Your task to perform on an android device: Go to battery settings Image 0: 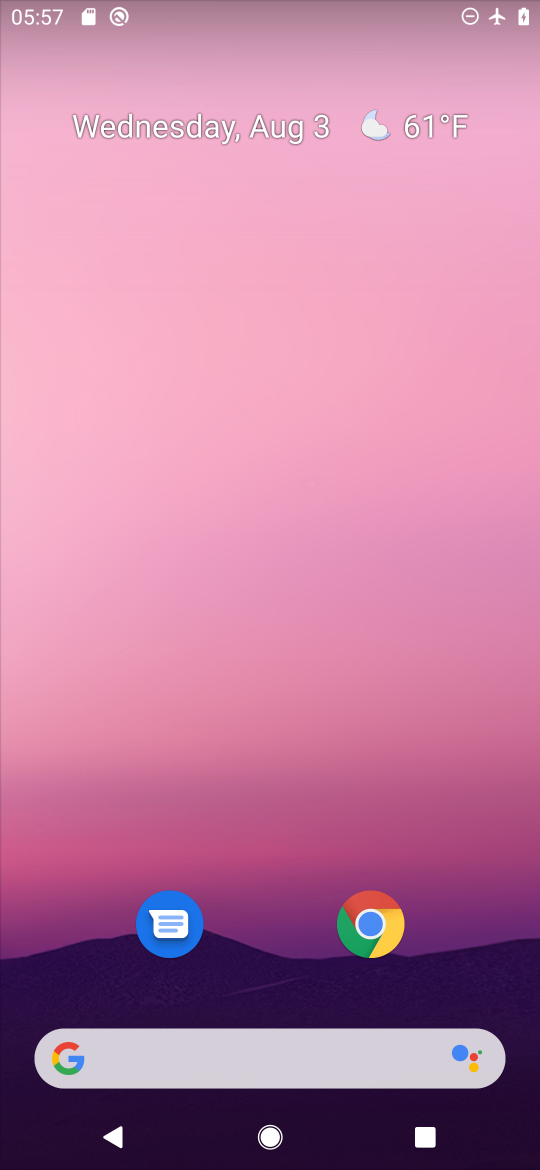
Step 0: drag from (264, 975) to (199, 238)
Your task to perform on an android device: Go to battery settings Image 1: 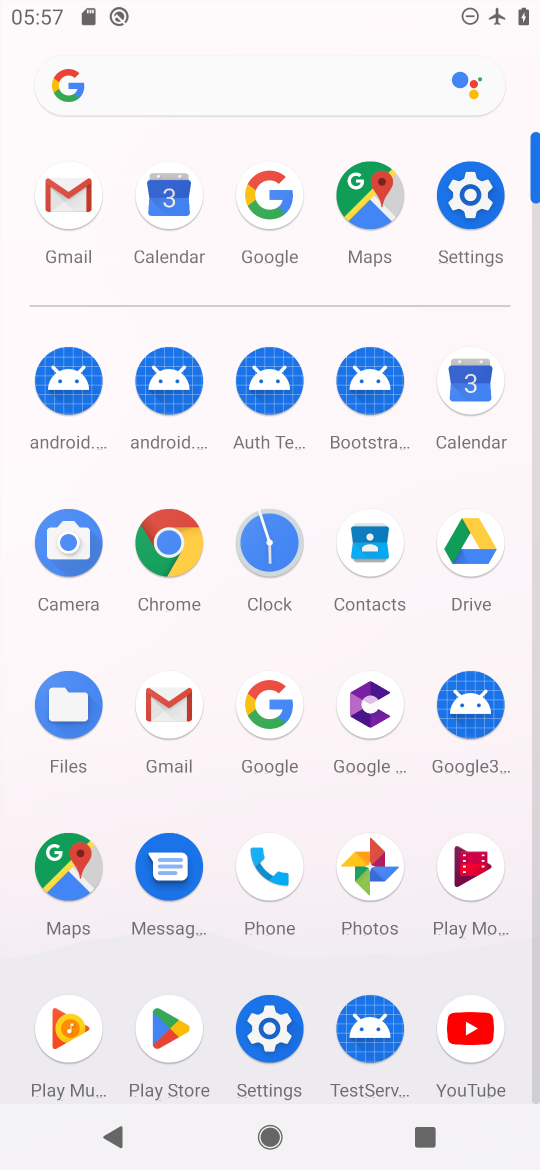
Step 1: click (459, 209)
Your task to perform on an android device: Go to battery settings Image 2: 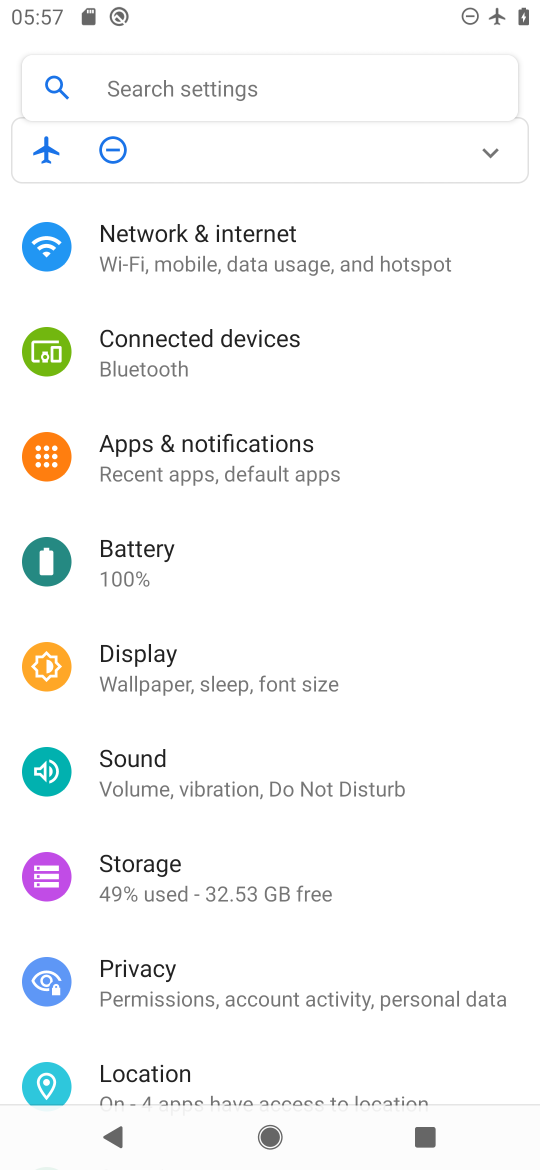
Step 2: click (156, 570)
Your task to perform on an android device: Go to battery settings Image 3: 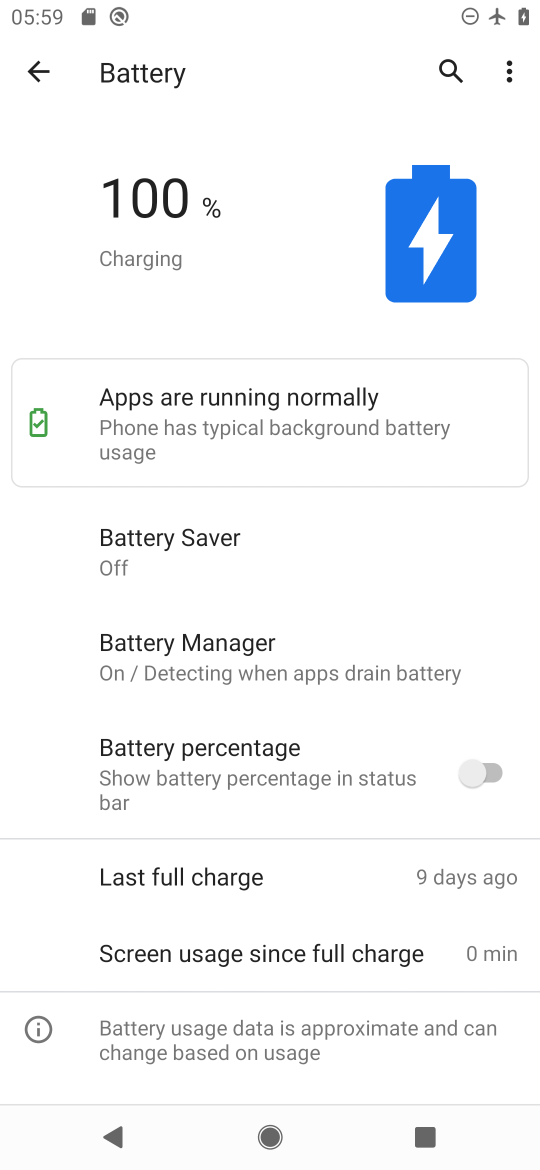
Step 3: task complete